Your task to perform on an android device: Open the calendar and show me this week's events? Image 0: 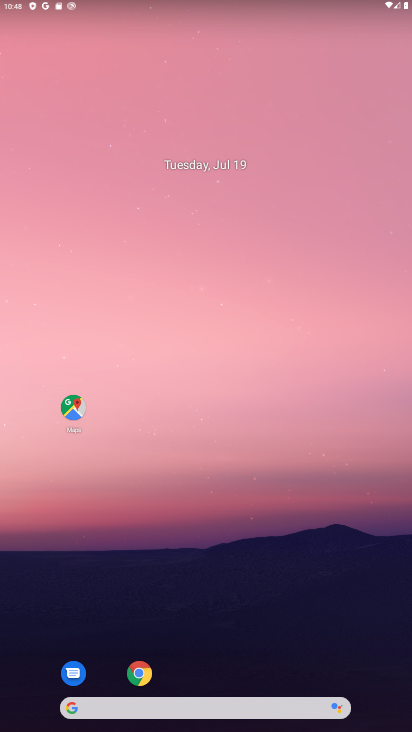
Step 0: drag from (379, 671) to (311, 81)
Your task to perform on an android device: Open the calendar and show me this week's events? Image 1: 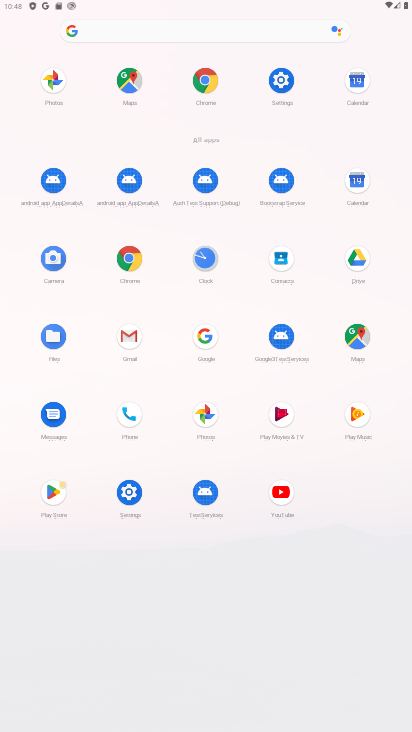
Step 1: click (353, 180)
Your task to perform on an android device: Open the calendar and show me this week's events? Image 2: 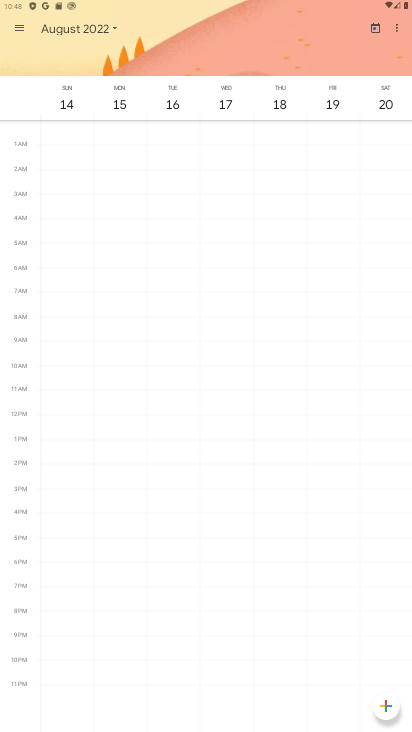
Step 2: click (114, 25)
Your task to perform on an android device: Open the calendar and show me this week's events? Image 3: 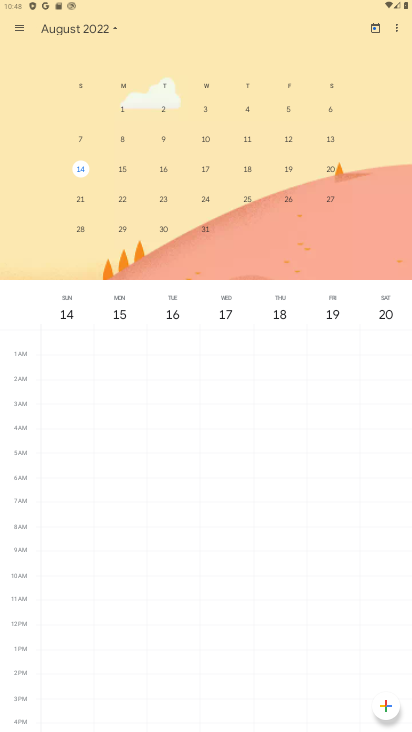
Step 3: drag from (77, 198) to (356, 189)
Your task to perform on an android device: Open the calendar and show me this week's events? Image 4: 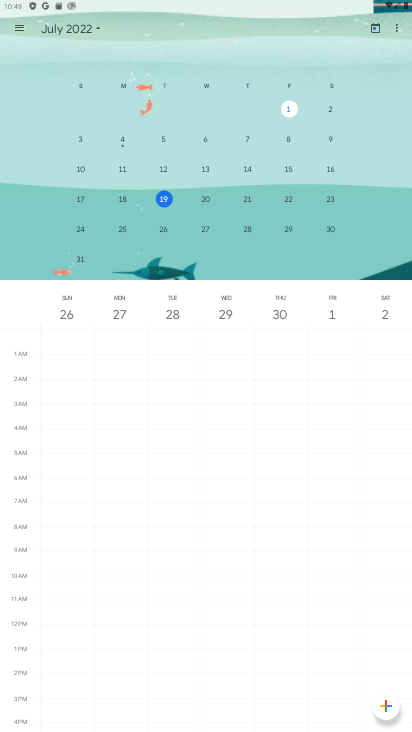
Step 4: click (161, 199)
Your task to perform on an android device: Open the calendar and show me this week's events? Image 5: 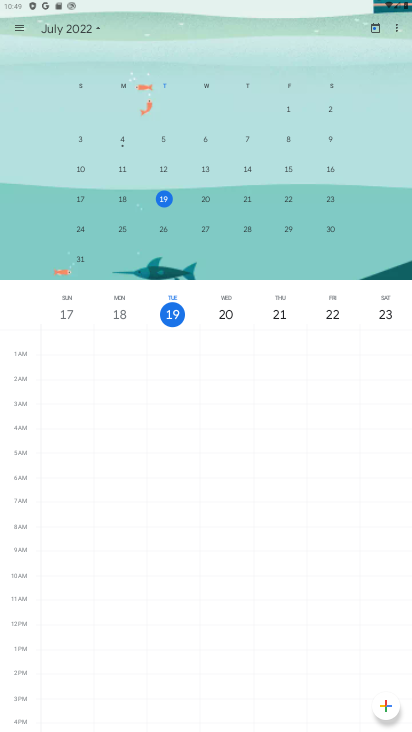
Step 5: task complete